Your task to perform on an android device: Go to location settings Image 0: 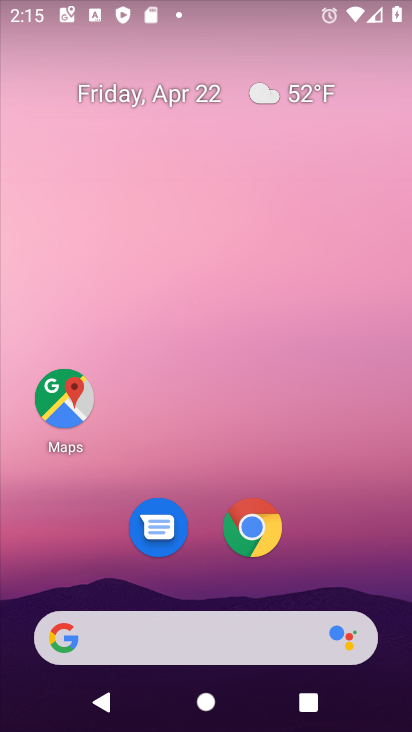
Step 0: drag from (363, 438) to (301, 75)
Your task to perform on an android device: Go to location settings Image 1: 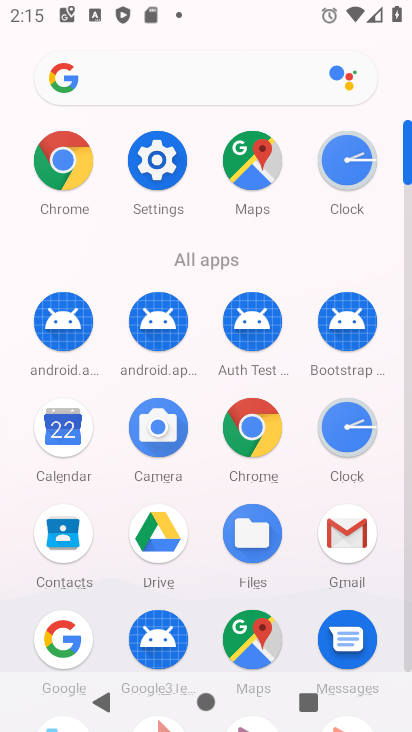
Step 1: click (169, 157)
Your task to perform on an android device: Go to location settings Image 2: 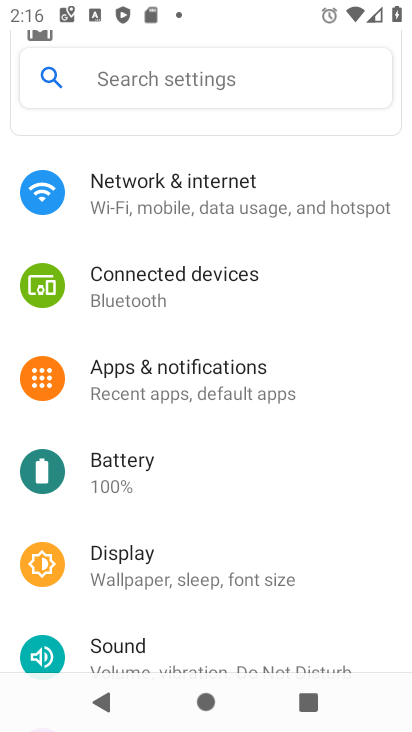
Step 2: drag from (217, 471) to (186, 231)
Your task to perform on an android device: Go to location settings Image 3: 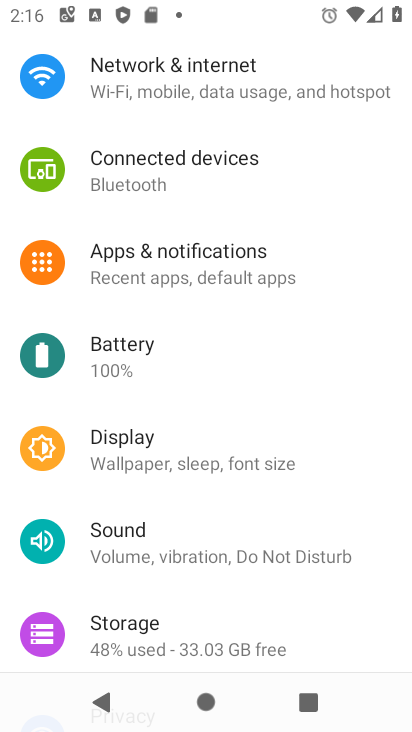
Step 3: drag from (256, 511) to (239, 245)
Your task to perform on an android device: Go to location settings Image 4: 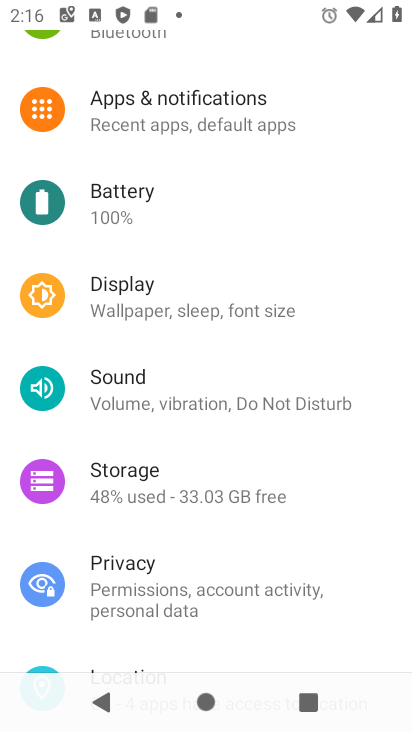
Step 4: drag from (225, 572) to (190, 261)
Your task to perform on an android device: Go to location settings Image 5: 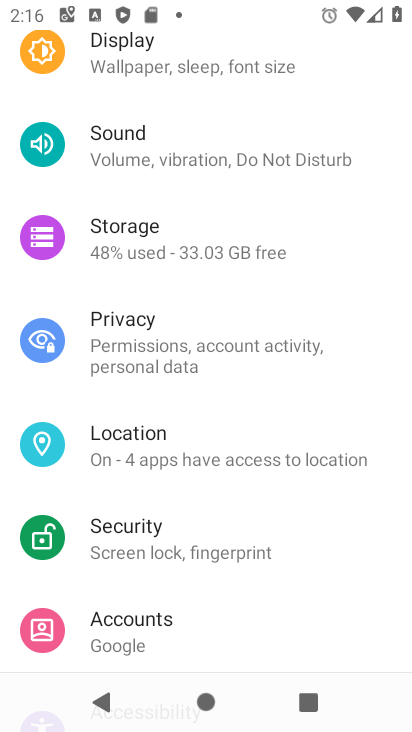
Step 5: click (177, 444)
Your task to perform on an android device: Go to location settings Image 6: 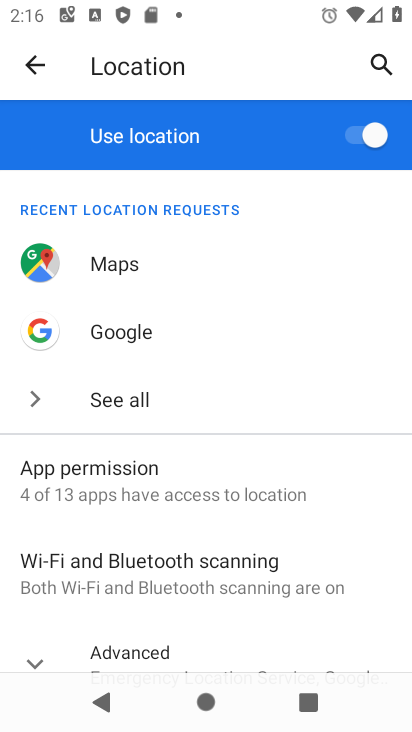
Step 6: task complete